Your task to perform on an android device: When is my next appointment? Image 0: 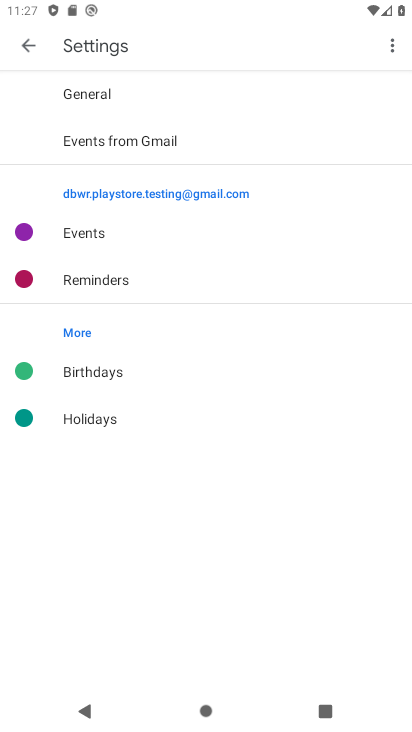
Step 0: press home button
Your task to perform on an android device: When is my next appointment? Image 1: 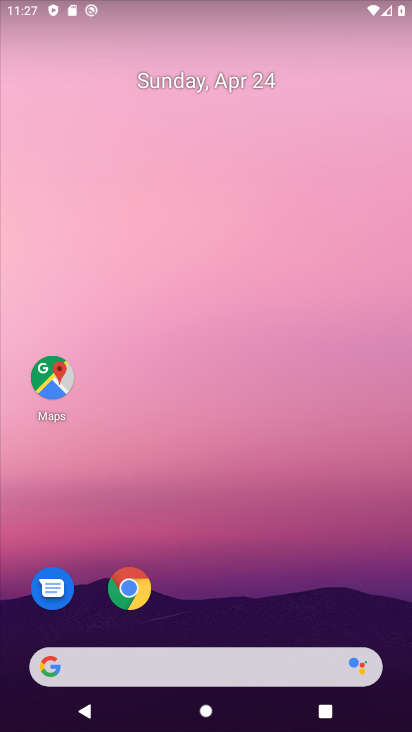
Step 1: drag from (255, 616) to (276, 108)
Your task to perform on an android device: When is my next appointment? Image 2: 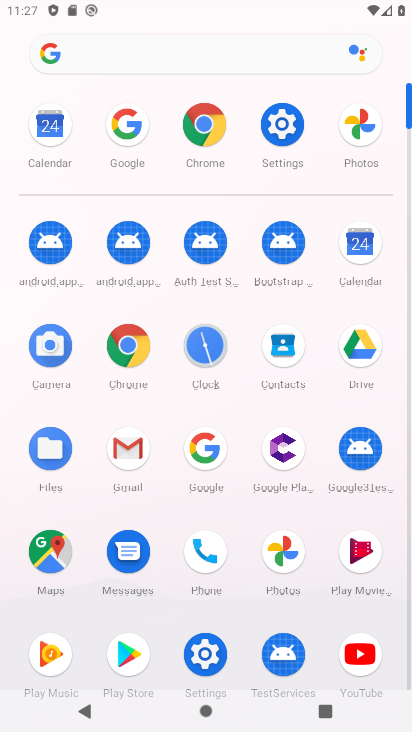
Step 2: click (363, 251)
Your task to perform on an android device: When is my next appointment? Image 3: 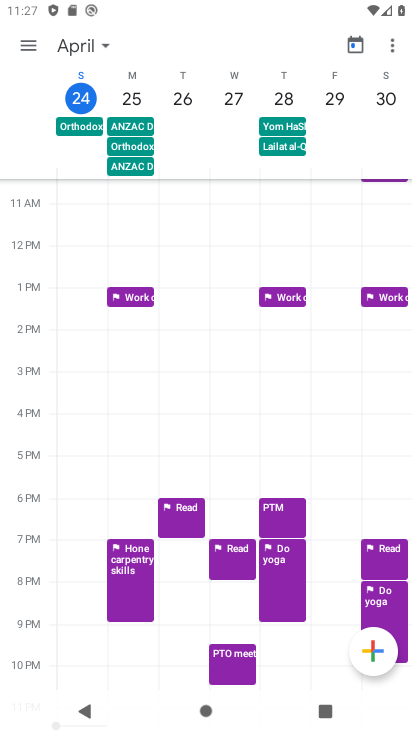
Step 3: click (27, 48)
Your task to perform on an android device: When is my next appointment? Image 4: 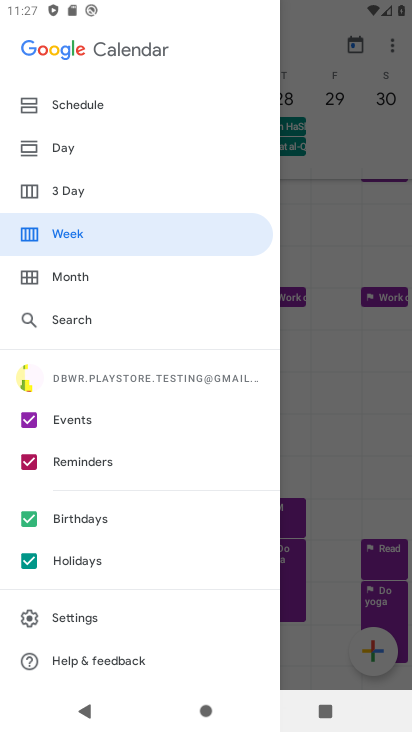
Step 4: click (73, 114)
Your task to perform on an android device: When is my next appointment? Image 5: 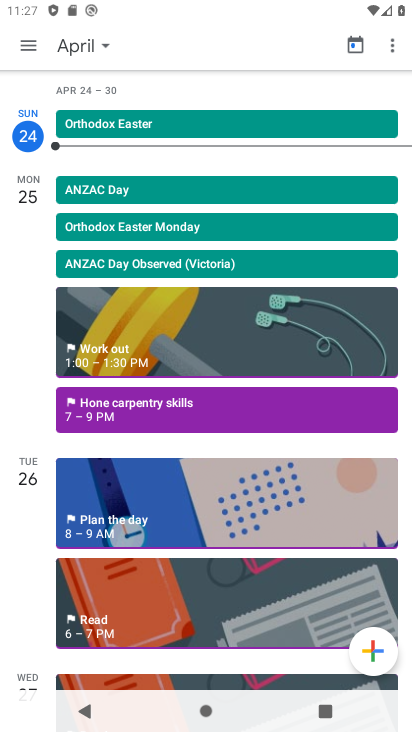
Step 5: task complete